Your task to perform on an android device: set an alarm Image 0: 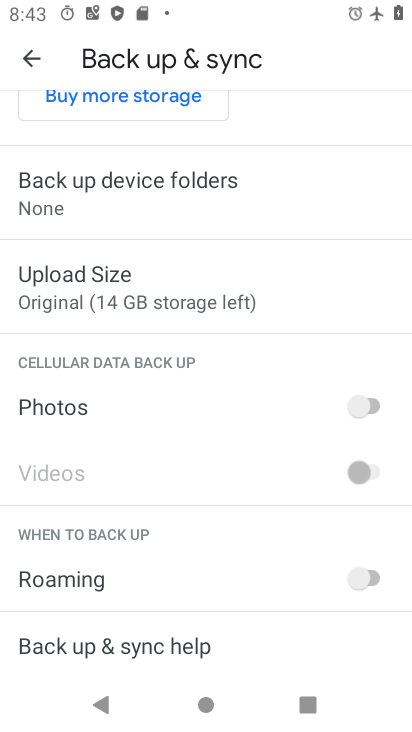
Step 0: press home button
Your task to perform on an android device: set an alarm Image 1: 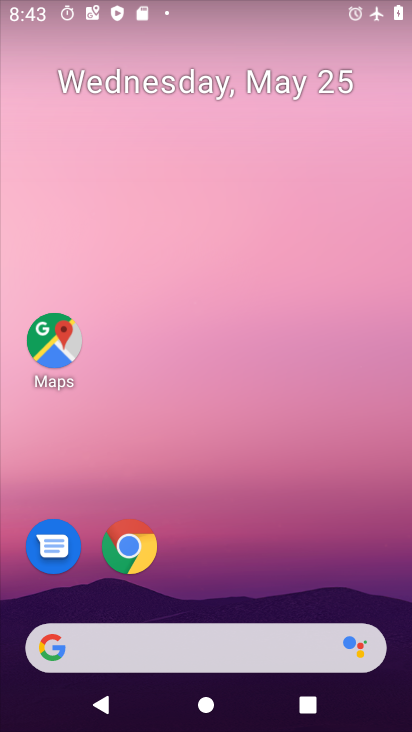
Step 1: drag from (183, 572) to (189, 143)
Your task to perform on an android device: set an alarm Image 2: 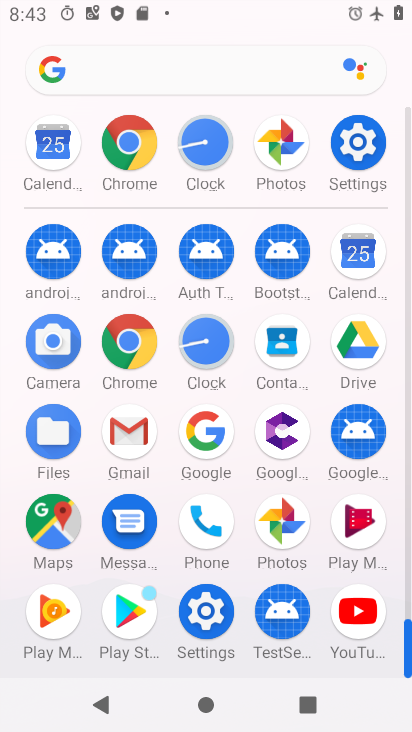
Step 2: click (186, 151)
Your task to perform on an android device: set an alarm Image 3: 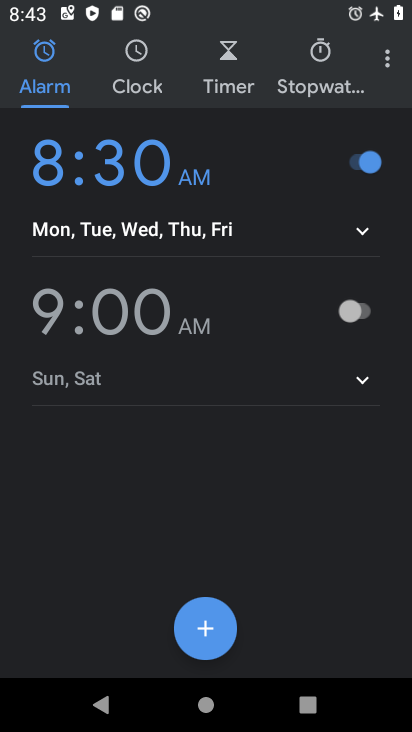
Step 3: click (368, 314)
Your task to perform on an android device: set an alarm Image 4: 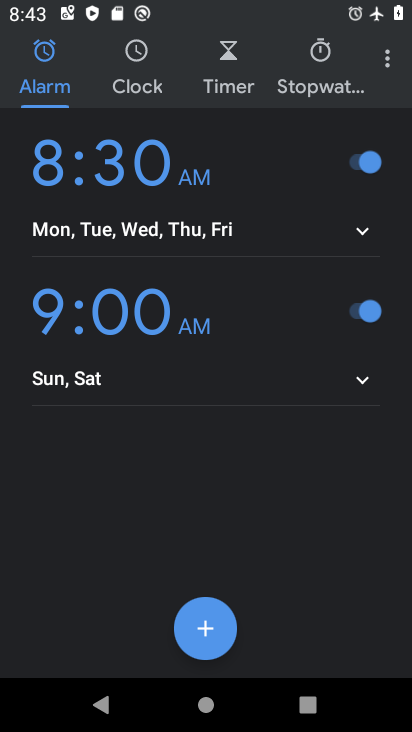
Step 4: task complete